Your task to perform on an android device: stop showing notifications on the lock screen Image 0: 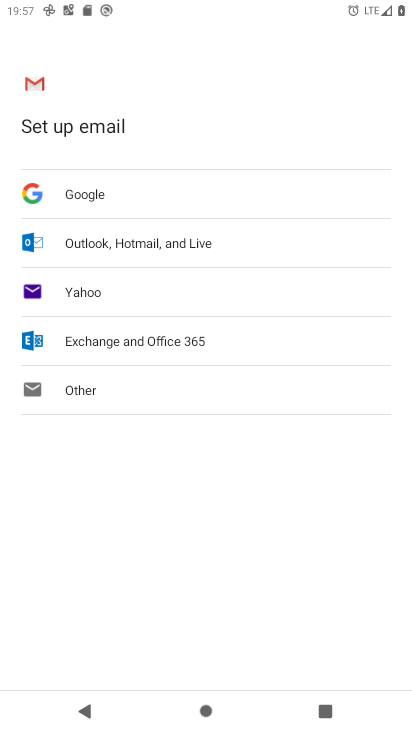
Step 0: press home button
Your task to perform on an android device: stop showing notifications on the lock screen Image 1: 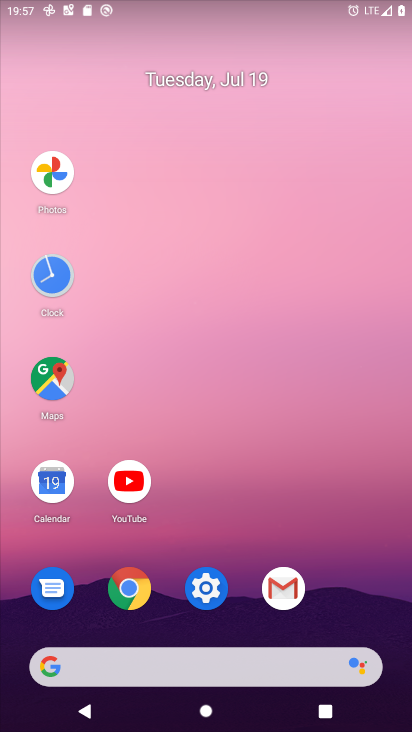
Step 1: click (213, 594)
Your task to perform on an android device: stop showing notifications on the lock screen Image 2: 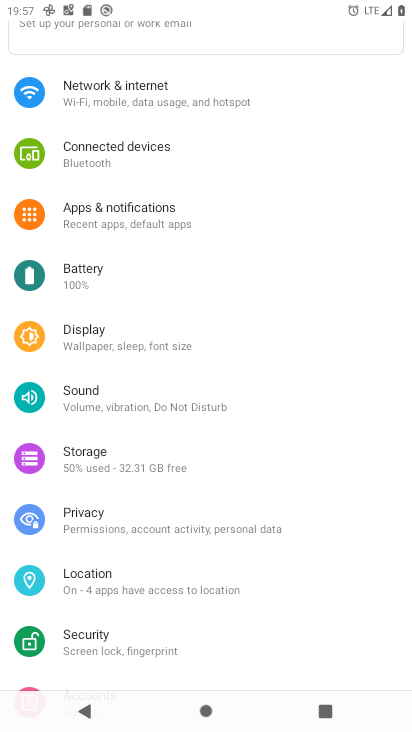
Step 2: click (125, 205)
Your task to perform on an android device: stop showing notifications on the lock screen Image 3: 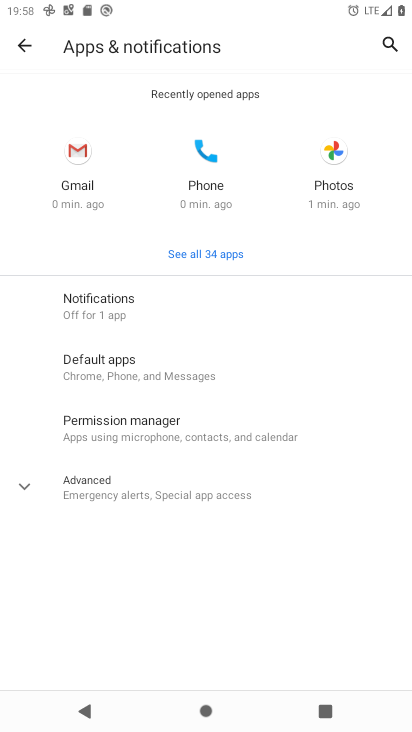
Step 3: click (86, 297)
Your task to perform on an android device: stop showing notifications on the lock screen Image 4: 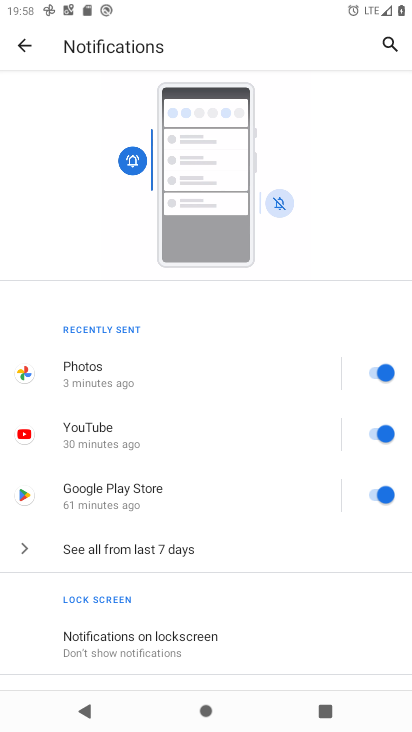
Step 4: click (122, 635)
Your task to perform on an android device: stop showing notifications on the lock screen Image 5: 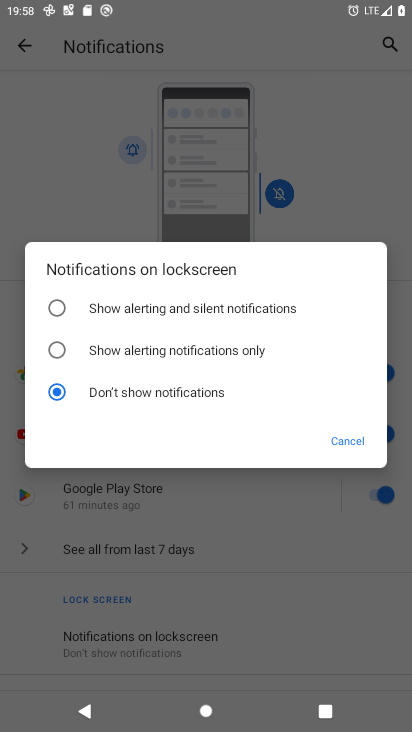
Step 5: task complete